Your task to perform on an android device: turn off data saver in the chrome app Image 0: 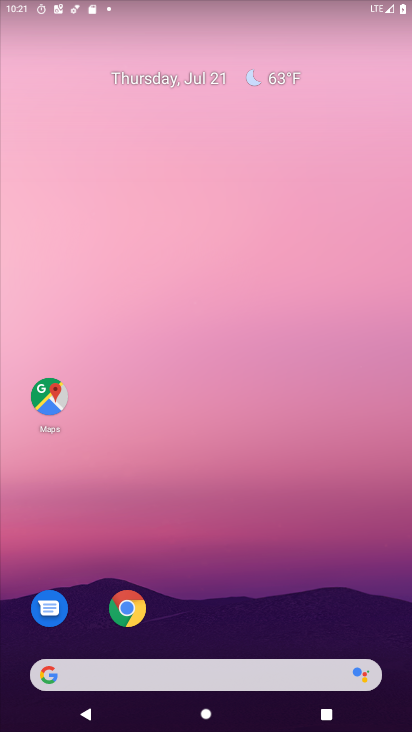
Step 0: drag from (188, 660) to (277, 145)
Your task to perform on an android device: turn off data saver in the chrome app Image 1: 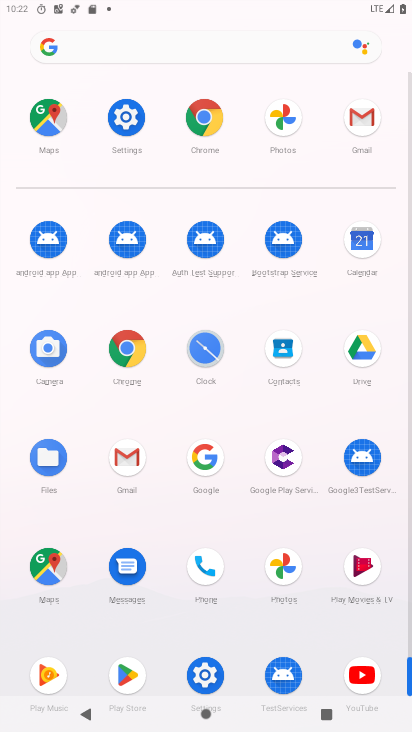
Step 1: click (196, 121)
Your task to perform on an android device: turn off data saver in the chrome app Image 2: 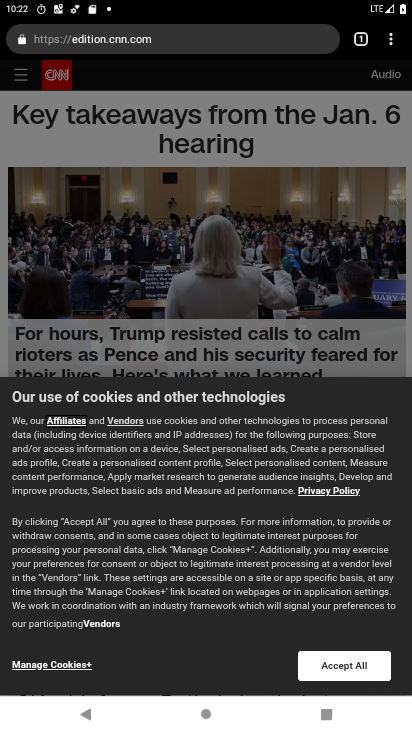
Step 2: click (396, 45)
Your task to perform on an android device: turn off data saver in the chrome app Image 3: 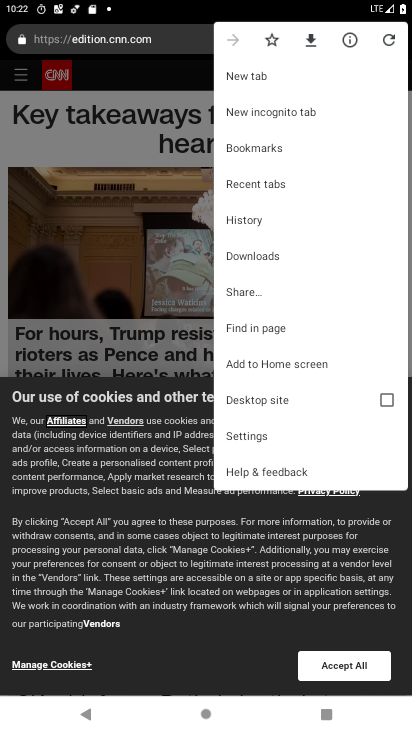
Step 3: click (267, 430)
Your task to perform on an android device: turn off data saver in the chrome app Image 4: 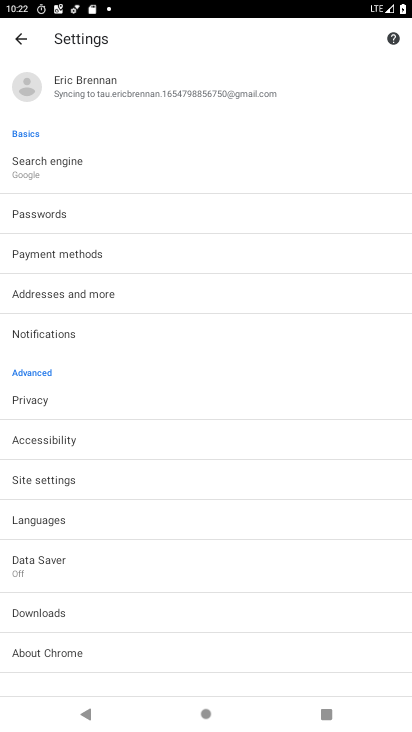
Step 4: click (145, 573)
Your task to perform on an android device: turn off data saver in the chrome app Image 5: 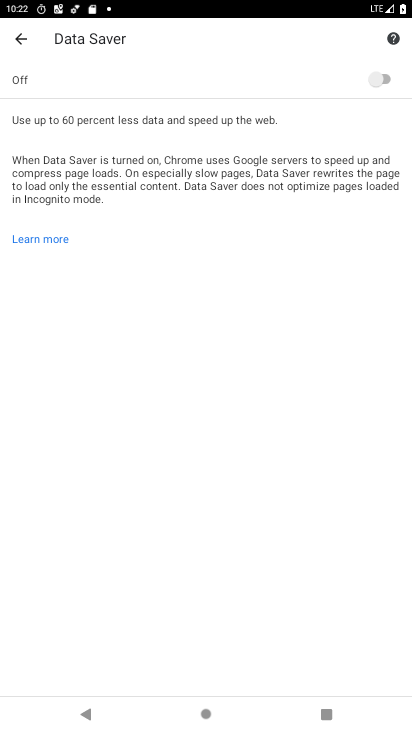
Step 5: task complete